Your task to perform on an android device: turn off location Image 0: 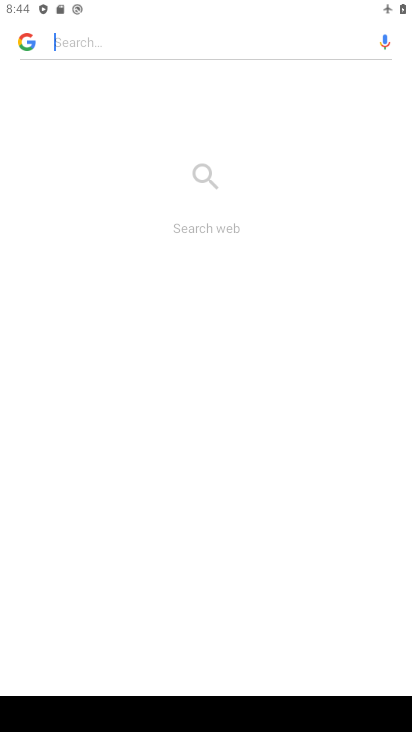
Step 0: press home button
Your task to perform on an android device: turn off location Image 1: 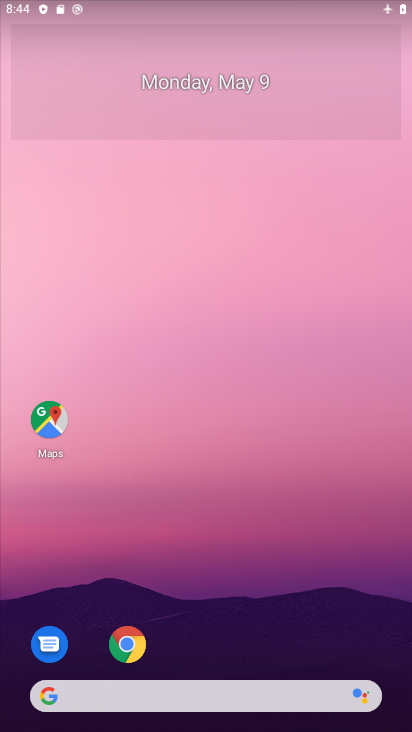
Step 1: drag from (214, 644) to (318, 106)
Your task to perform on an android device: turn off location Image 2: 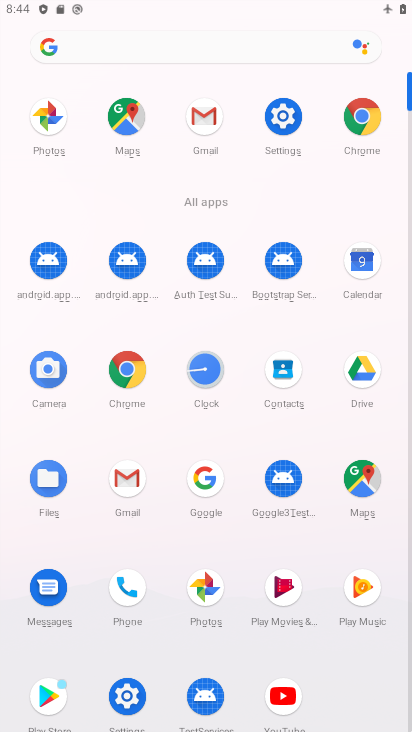
Step 2: click (295, 117)
Your task to perform on an android device: turn off location Image 3: 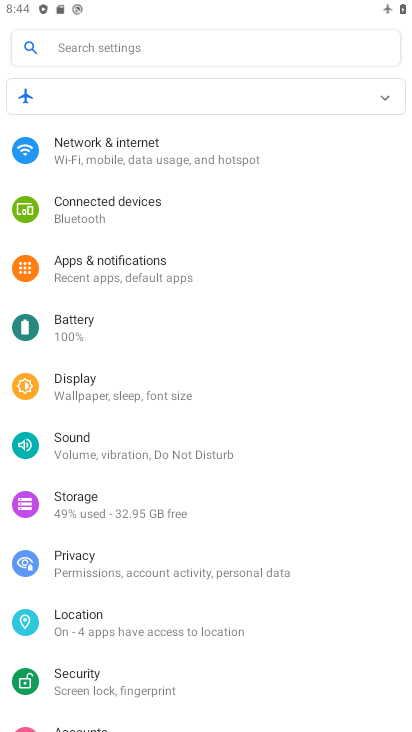
Step 3: drag from (207, 626) to (270, 152)
Your task to perform on an android device: turn off location Image 4: 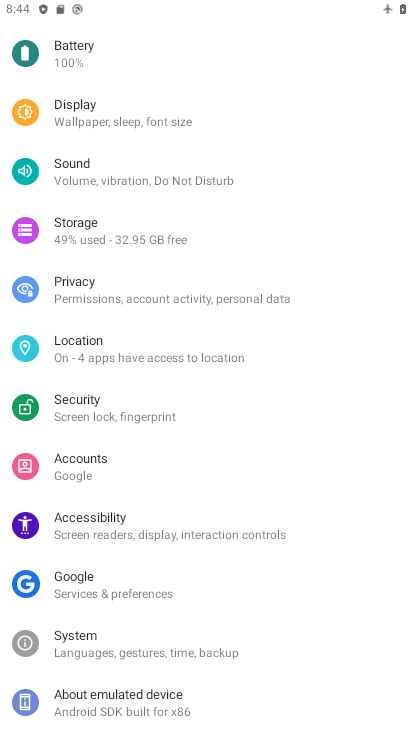
Step 4: click (150, 354)
Your task to perform on an android device: turn off location Image 5: 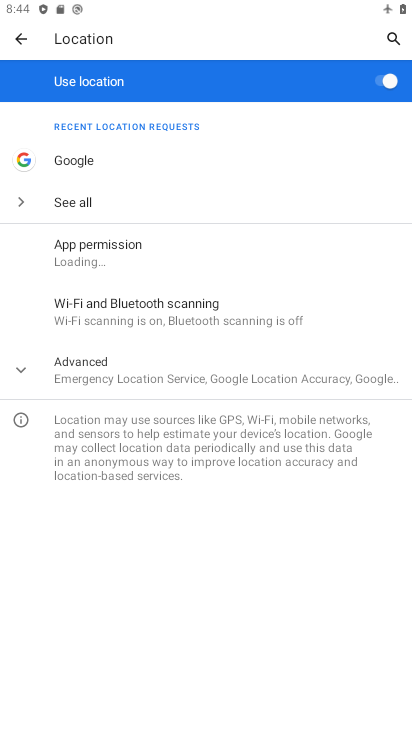
Step 5: click (381, 86)
Your task to perform on an android device: turn off location Image 6: 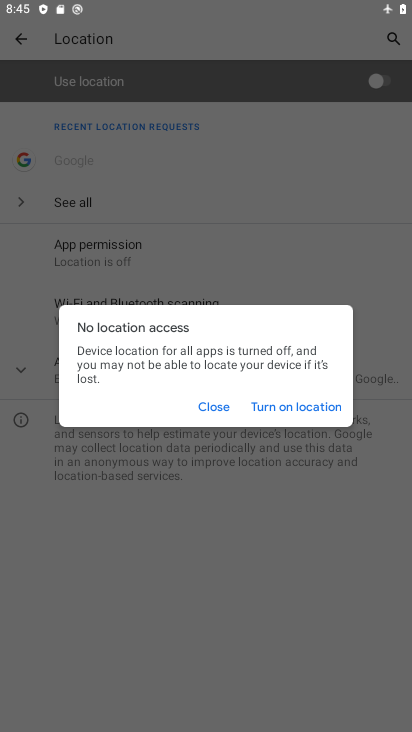
Step 6: task complete